Your task to perform on an android device: See recent photos Image 0: 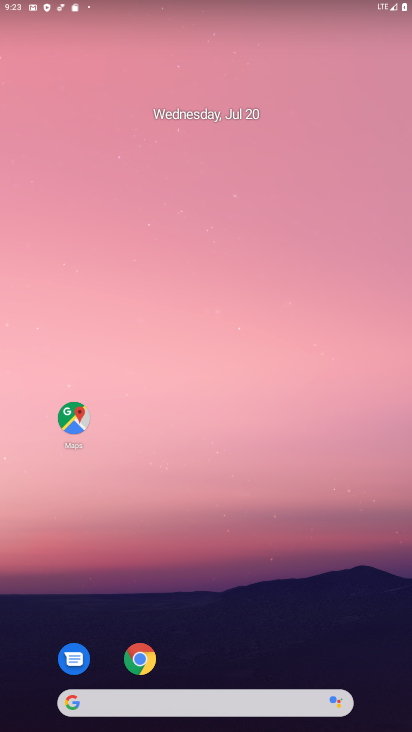
Step 0: drag from (260, 590) to (269, 212)
Your task to perform on an android device: See recent photos Image 1: 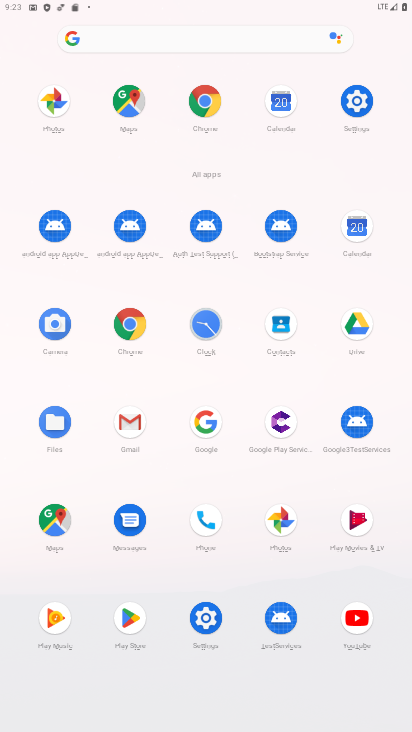
Step 1: click (50, 102)
Your task to perform on an android device: See recent photos Image 2: 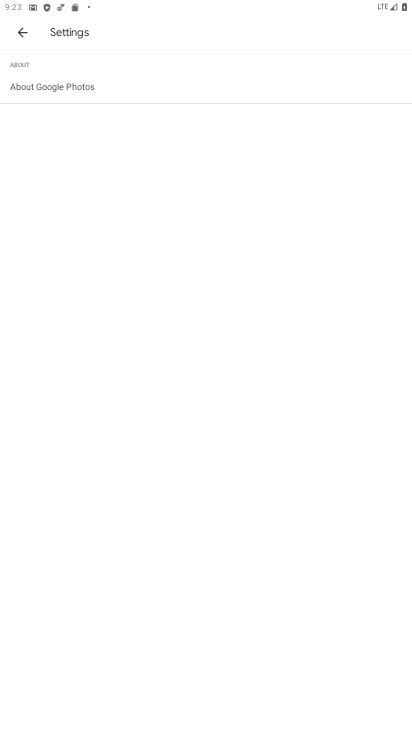
Step 2: click (22, 34)
Your task to perform on an android device: See recent photos Image 3: 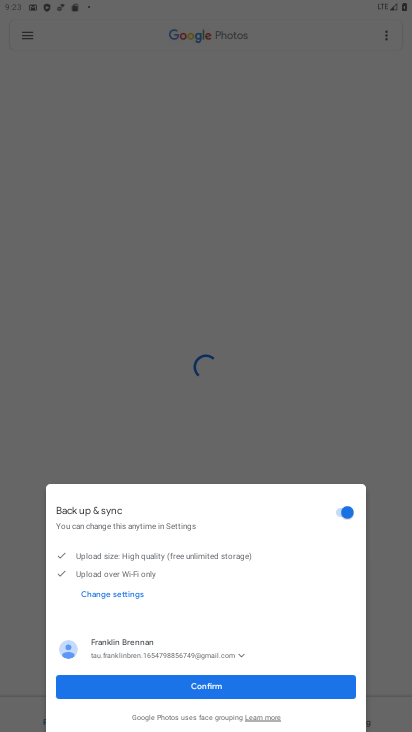
Step 3: click (210, 692)
Your task to perform on an android device: See recent photos Image 4: 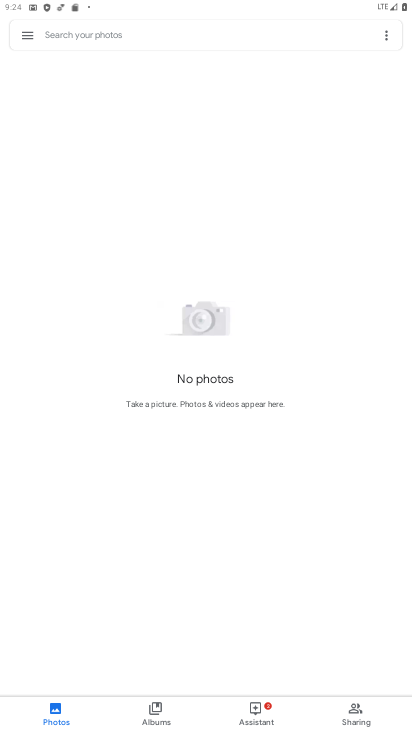
Step 4: task complete